Your task to perform on an android device: toggle sleep mode Image 0: 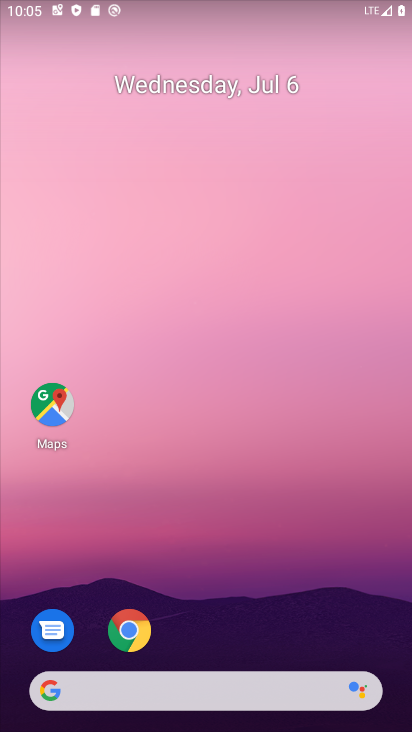
Step 0: drag from (380, 645) to (287, 22)
Your task to perform on an android device: toggle sleep mode Image 1: 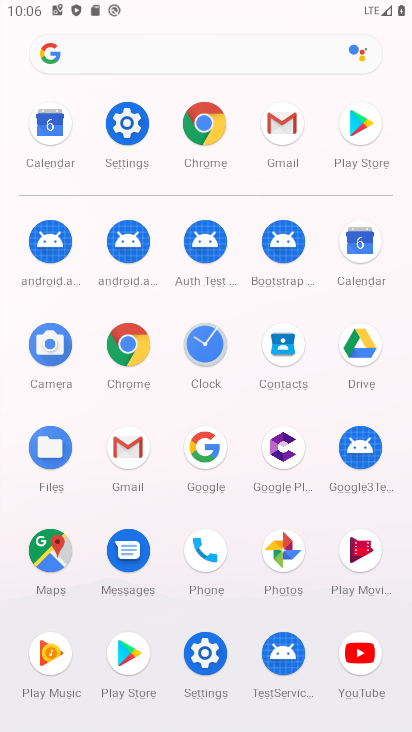
Step 1: click (204, 651)
Your task to perform on an android device: toggle sleep mode Image 2: 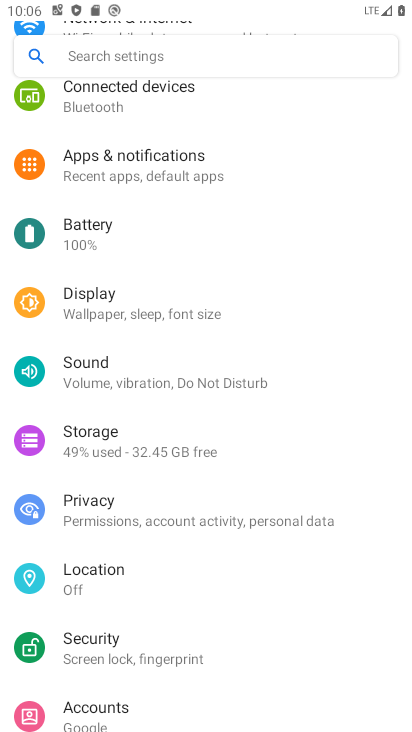
Step 2: click (115, 303)
Your task to perform on an android device: toggle sleep mode Image 3: 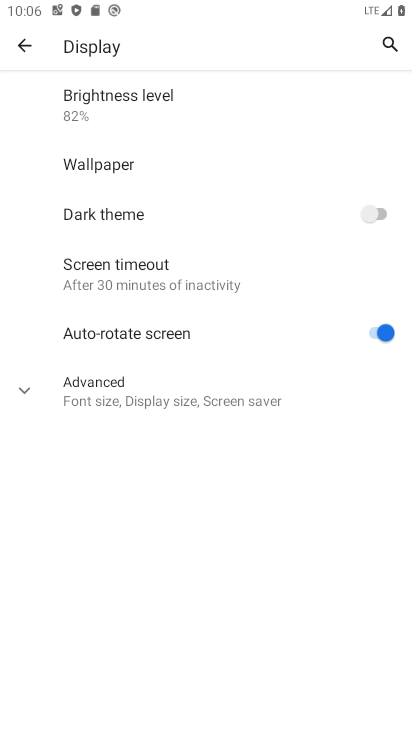
Step 3: click (20, 398)
Your task to perform on an android device: toggle sleep mode Image 4: 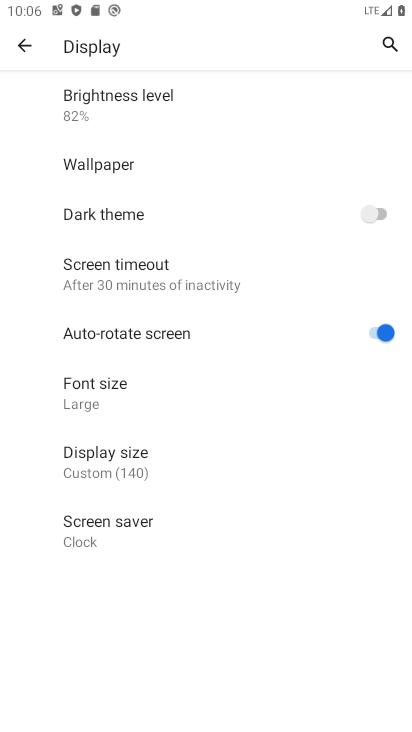
Step 4: click (261, 538)
Your task to perform on an android device: toggle sleep mode Image 5: 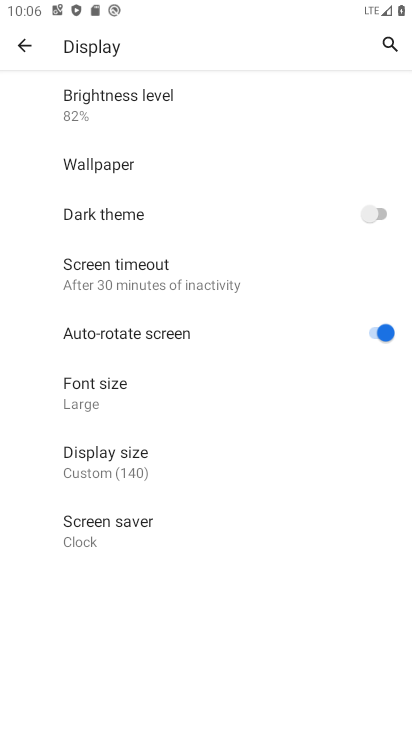
Step 5: task complete